Your task to perform on an android device: open app "WhatsApp Messenger" (install if not already installed) Image 0: 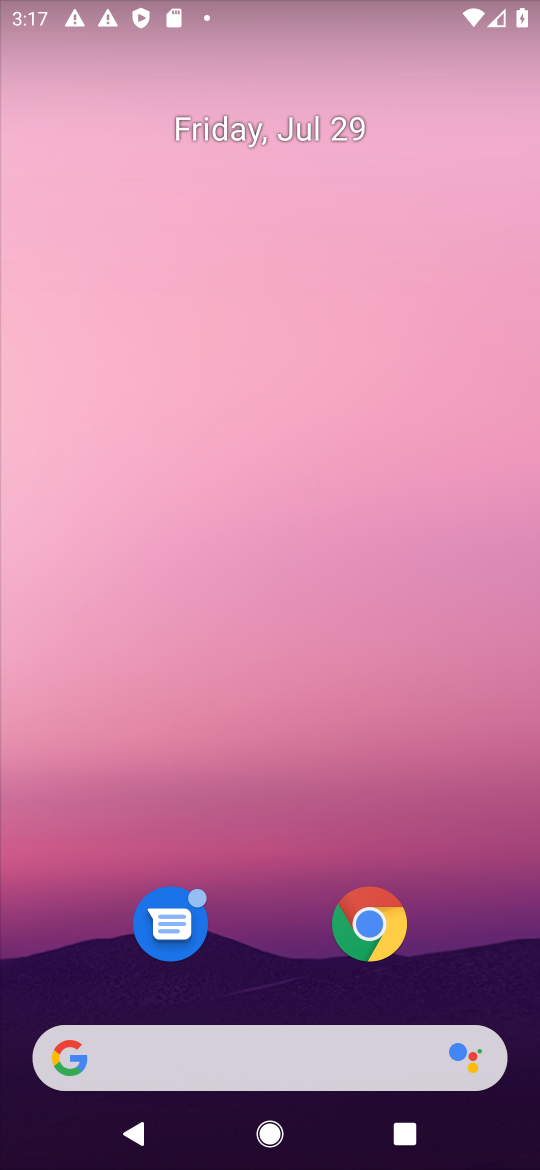
Step 0: drag from (200, 759) to (130, 410)
Your task to perform on an android device: open app "WhatsApp Messenger" (install if not already installed) Image 1: 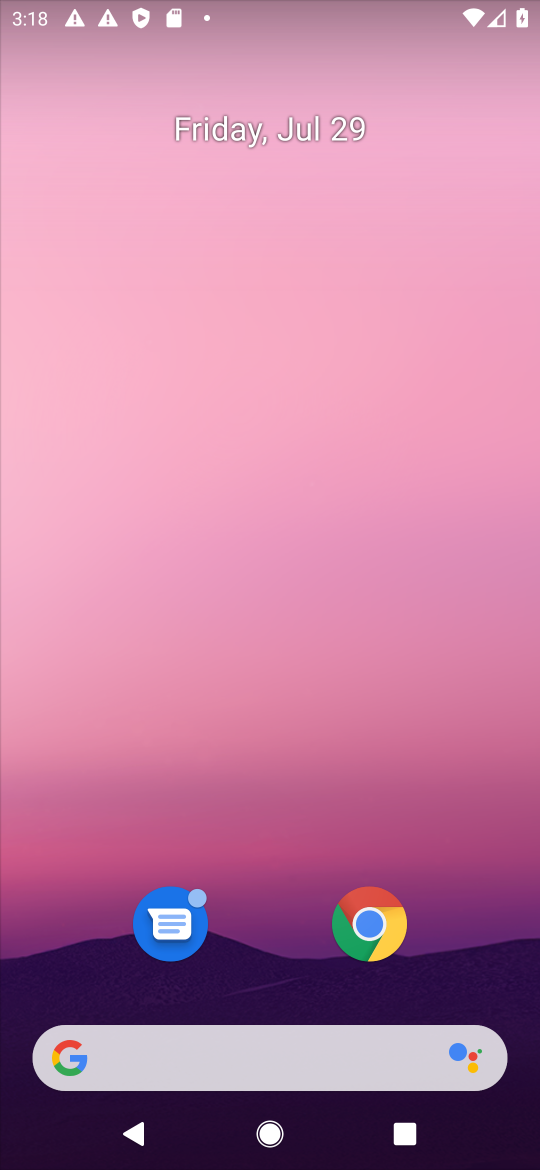
Step 1: drag from (245, 844) to (218, 167)
Your task to perform on an android device: open app "WhatsApp Messenger" (install if not already installed) Image 2: 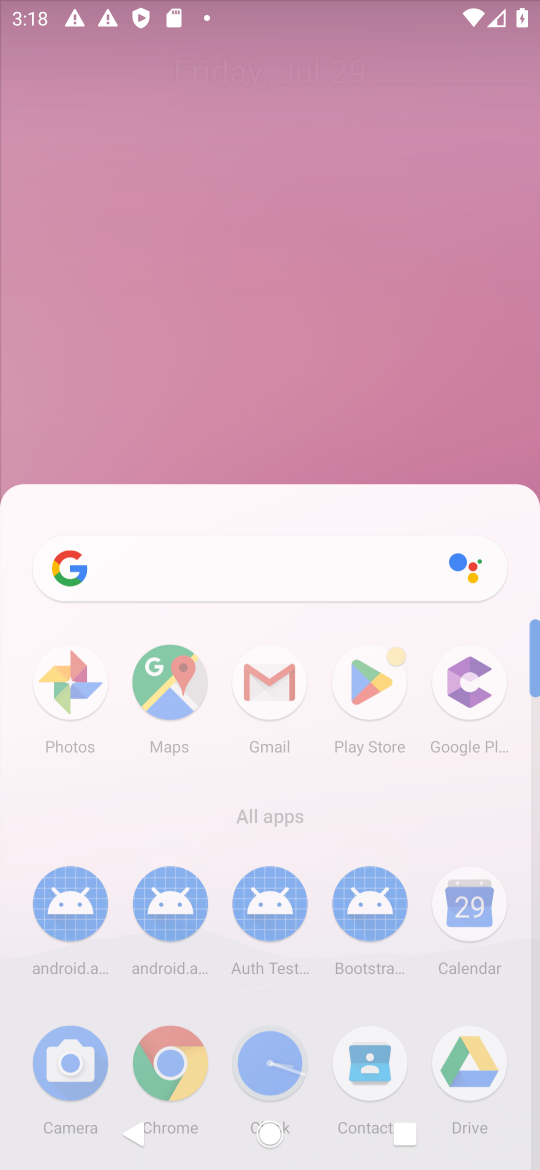
Step 2: drag from (302, 713) to (290, 225)
Your task to perform on an android device: open app "WhatsApp Messenger" (install if not already installed) Image 3: 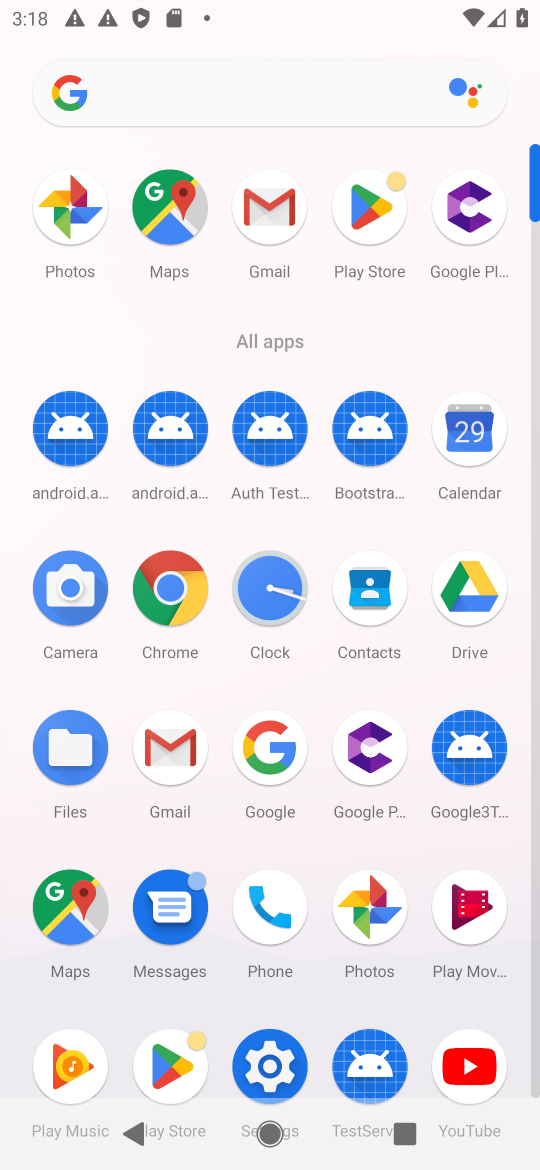
Step 3: drag from (342, 340) to (338, 135)
Your task to perform on an android device: open app "WhatsApp Messenger" (install if not already installed) Image 4: 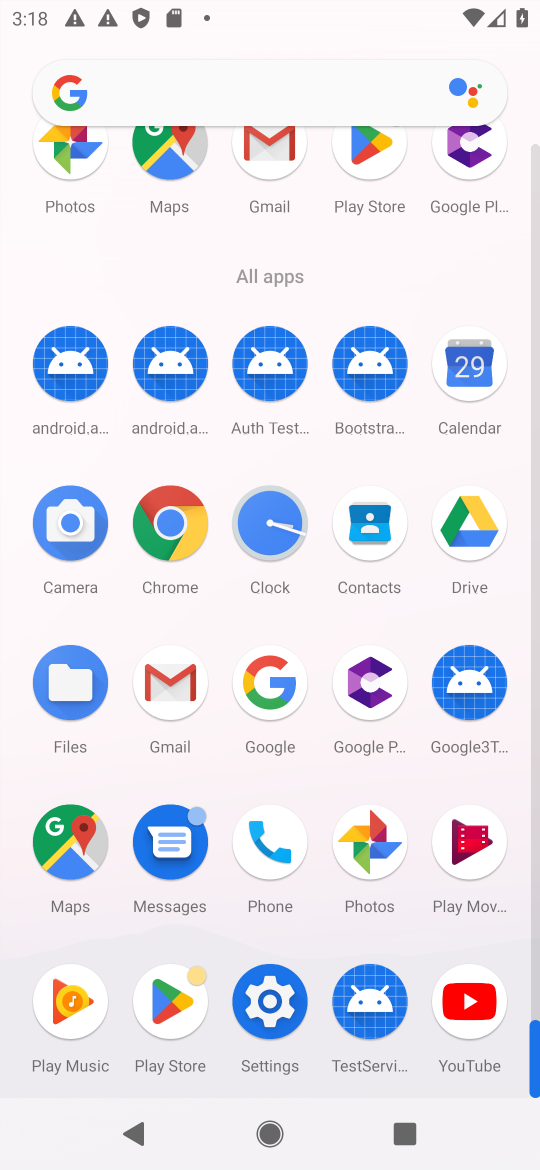
Step 4: click (365, 160)
Your task to perform on an android device: open app "WhatsApp Messenger" (install if not already installed) Image 5: 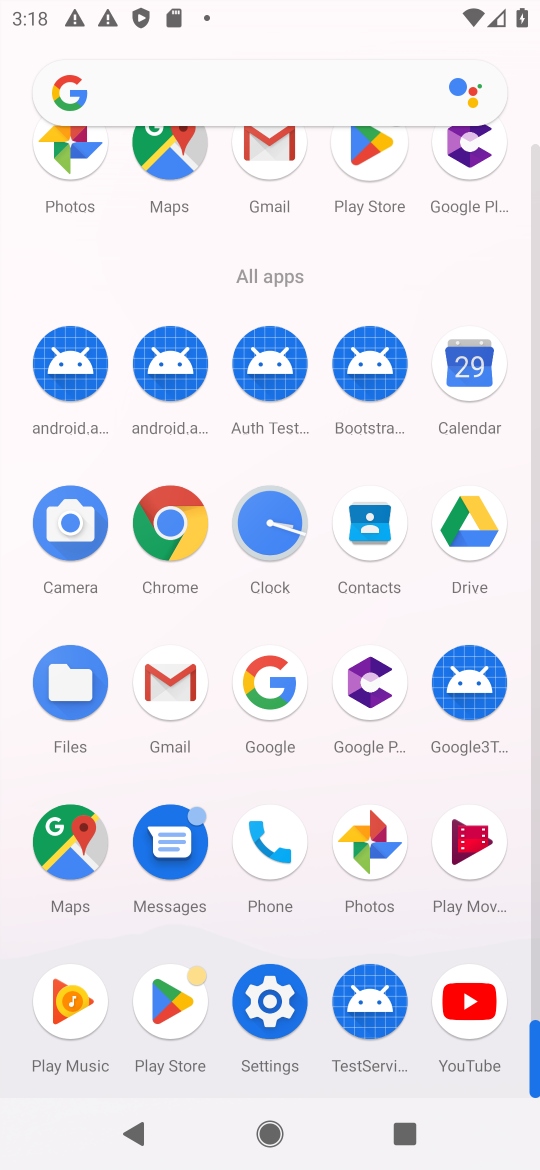
Step 5: click (367, 160)
Your task to perform on an android device: open app "WhatsApp Messenger" (install if not already installed) Image 6: 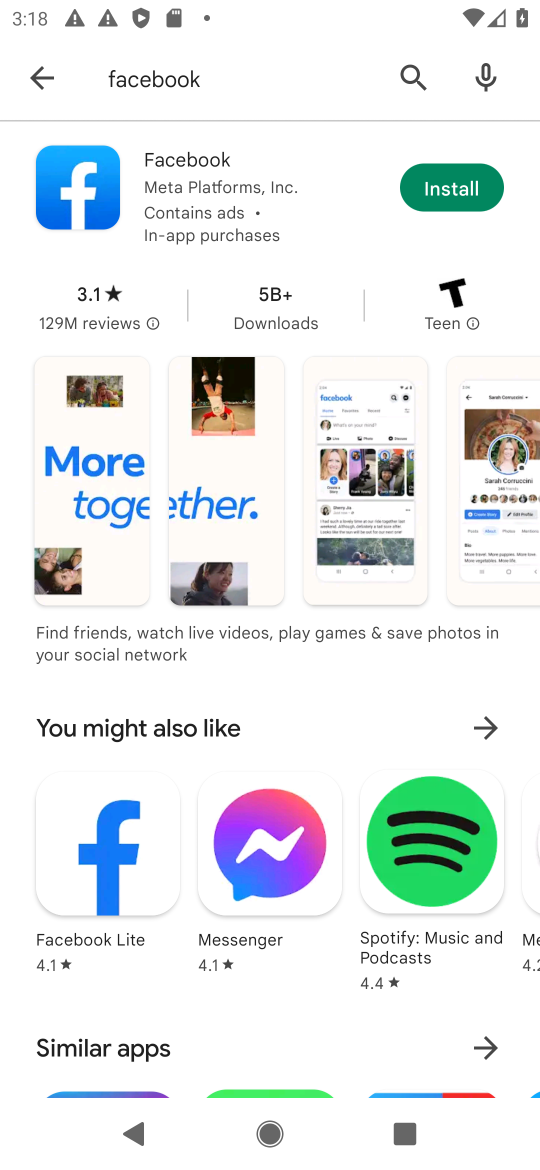
Step 6: click (34, 76)
Your task to perform on an android device: open app "WhatsApp Messenger" (install if not already installed) Image 7: 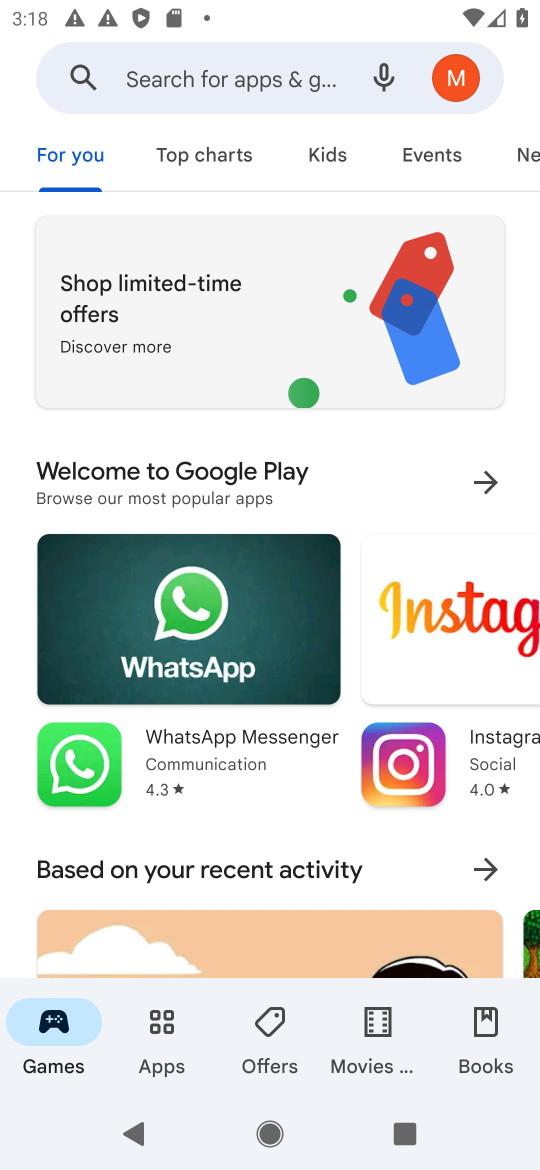
Step 7: click (121, 88)
Your task to perform on an android device: open app "WhatsApp Messenger" (install if not already installed) Image 8: 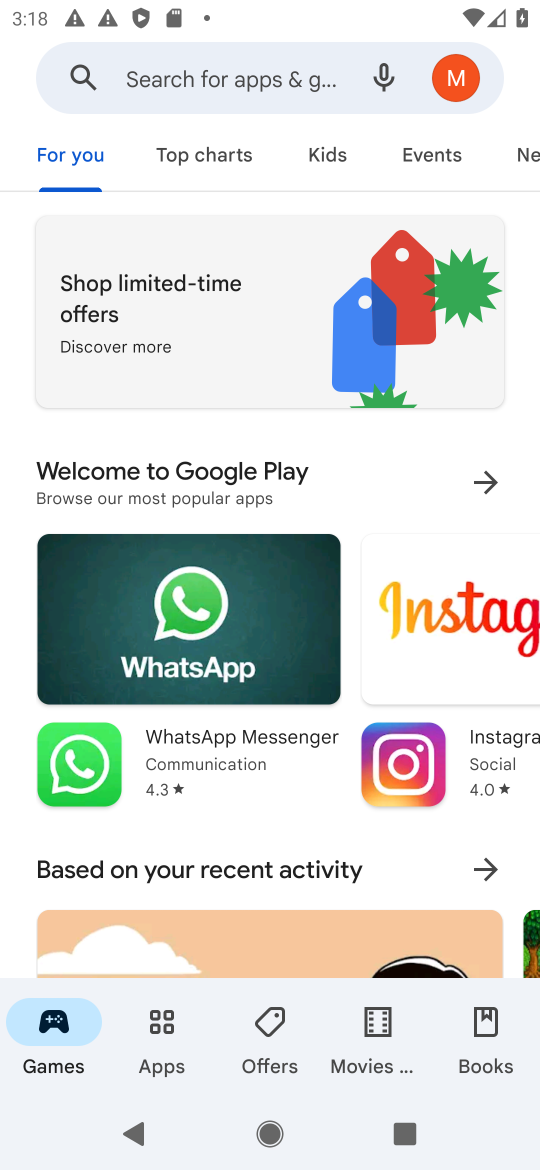
Step 8: click (119, 81)
Your task to perform on an android device: open app "WhatsApp Messenger" (install if not already installed) Image 9: 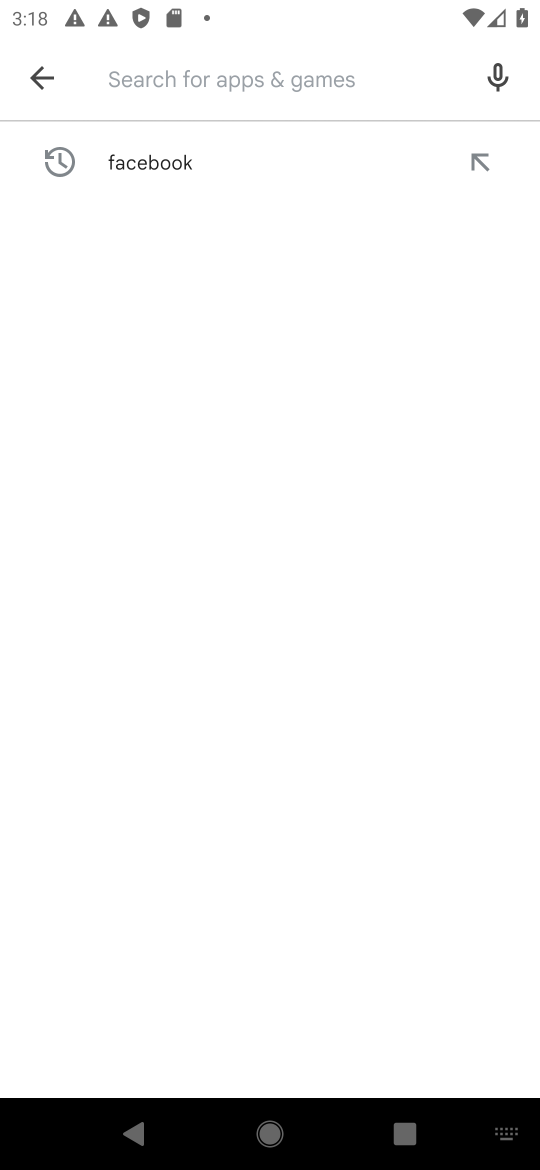
Step 9: type "whats App Messenger"
Your task to perform on an android device: open app "WhatsApp Messenger" (install if not already installed) Image 10: 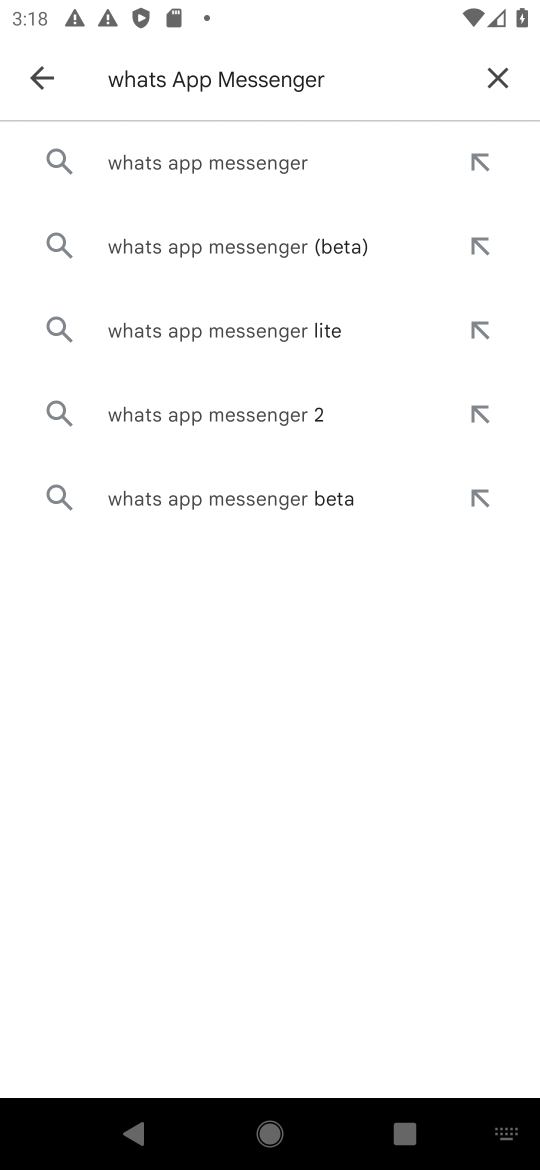
Step 10: click (246, 157)
Your task to perform on an android device: open app "WhatsApp Messenger" (install if not already installed) Image 11: 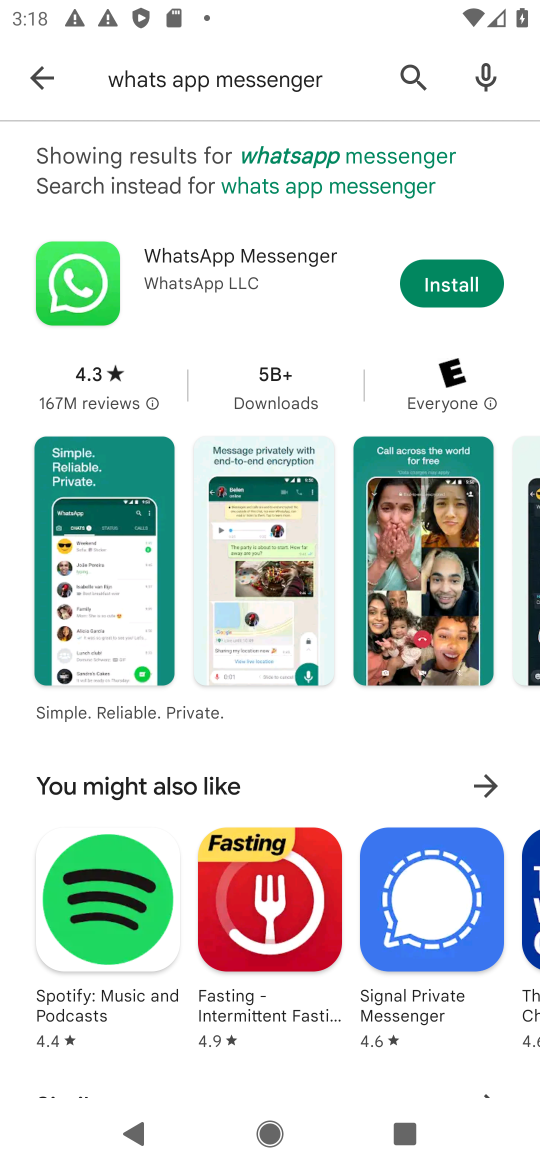
Step 11: click (419, 282)
Your task to perform on an android device: open app "WhatsApp Messenger" (install if not already installed) Image 12: 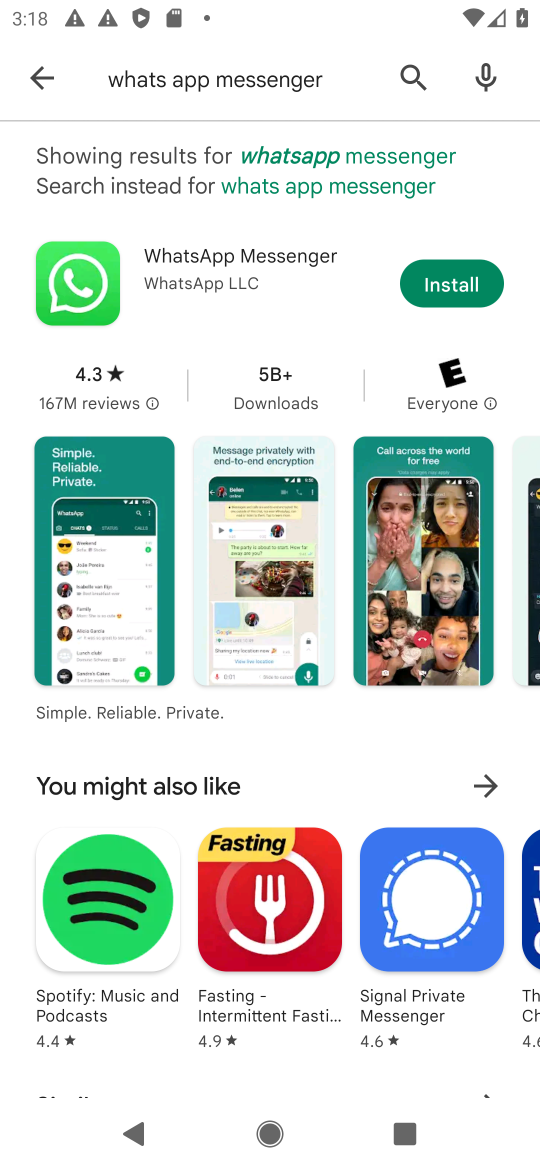
Step 12: click (420, 281)
Your task to perform on an android device: open app "WhatsApp Messenger" (install if not already installed) Image 13: 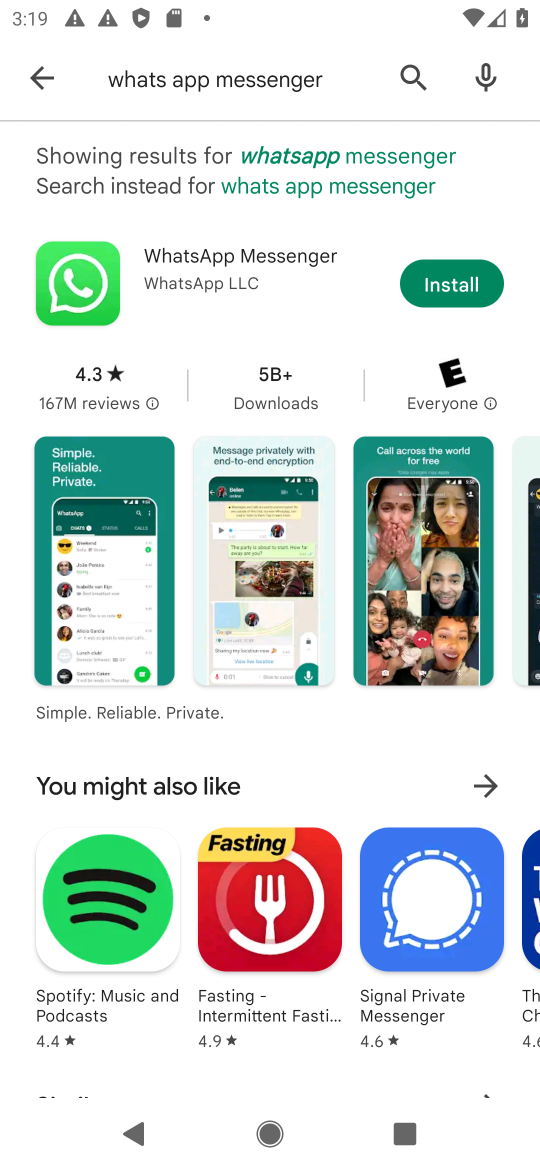
Step 13: click (449, 266)
Your task to perform on an android device: open app "WhatsApp Messenger" (install if not already installed) Image 14: 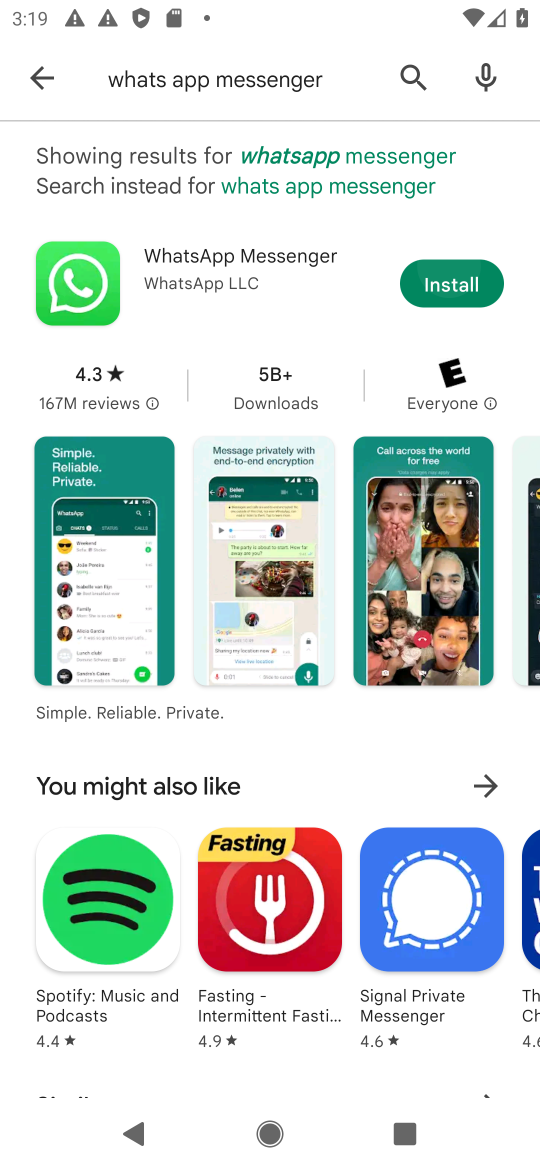
Step 14: click (446, 275)
Your task to perform on an android device: open app "WhatsApp Messenger" (install if not already installed) Image 15: 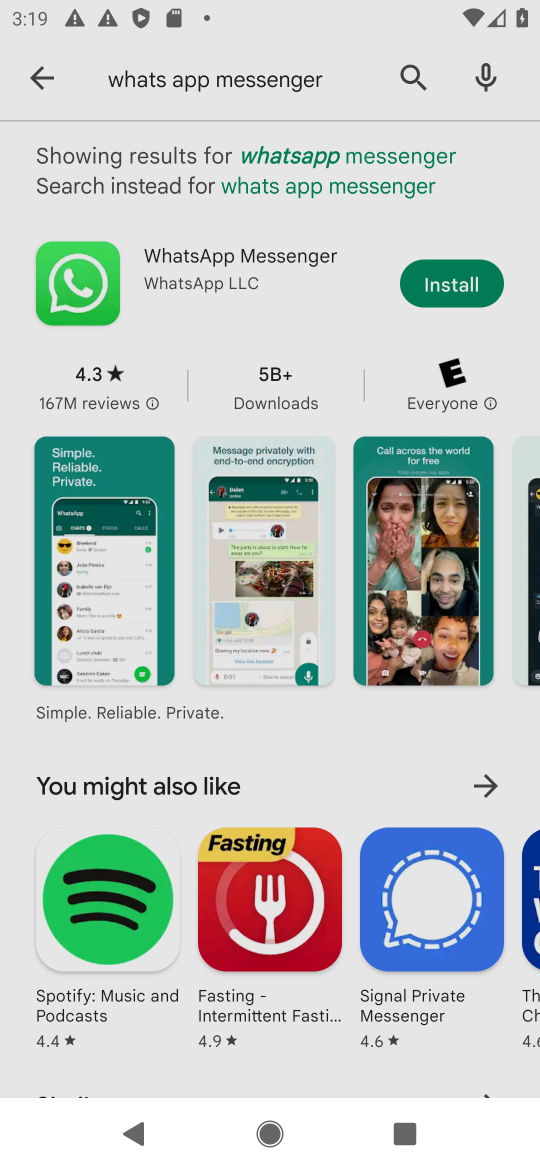
Step 15: click (496, 262)
Your task to perform on an android device: open app "WhatsApp Messenger" (install if not already installed) Image 16: 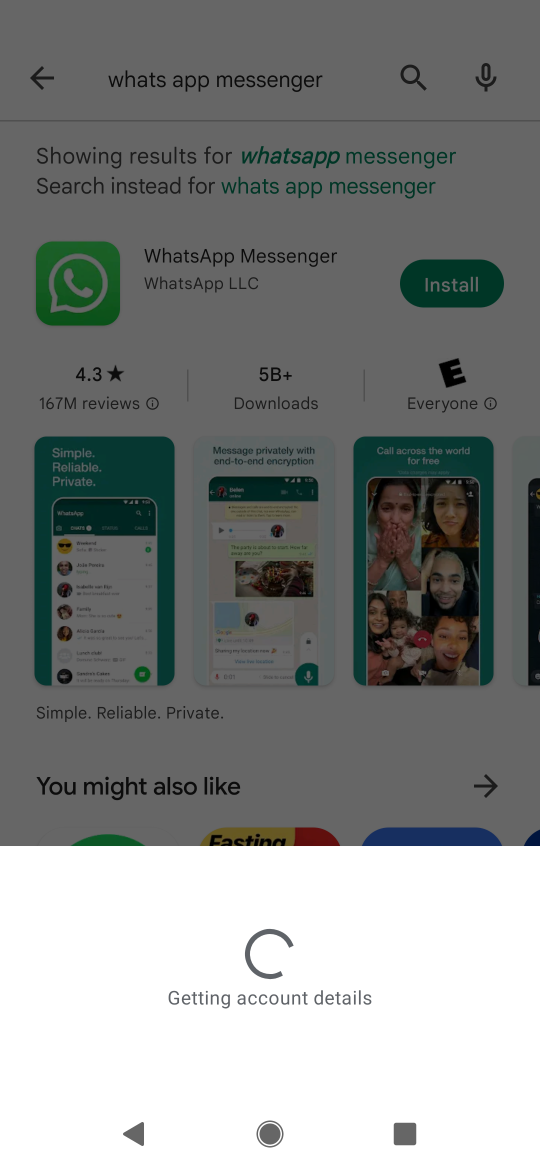
Step 16: click (490, 264)
Your task to perform on an android device: open app "WhatsApp Messenger" (install if not already installed) Image 17: 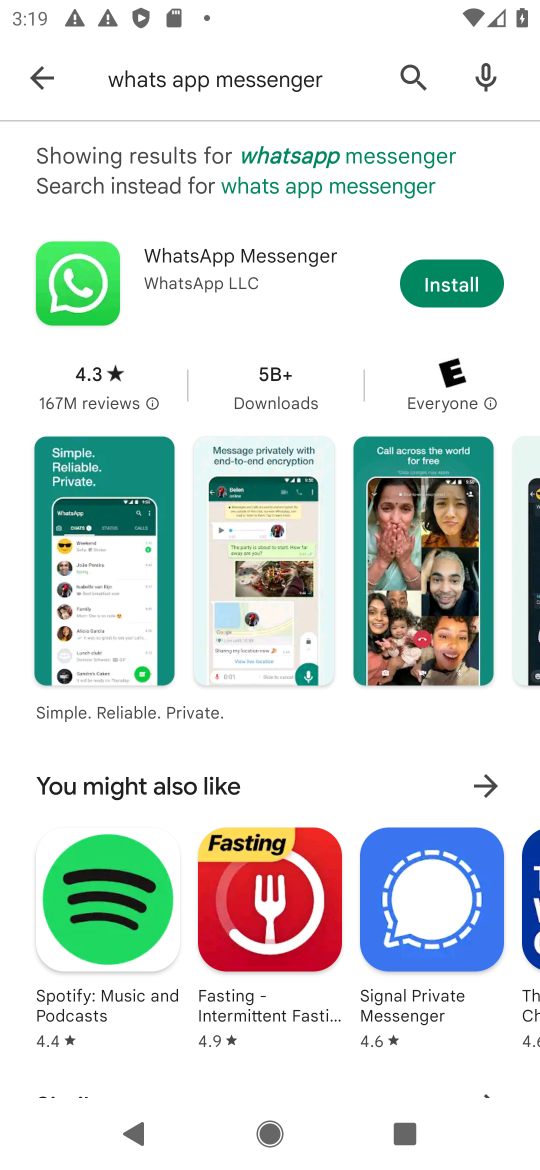
Step 17: click (449, 276)
Your task to perform on an android device: open app "WhatsApp Messenger" (install if not already installed) Image 18: 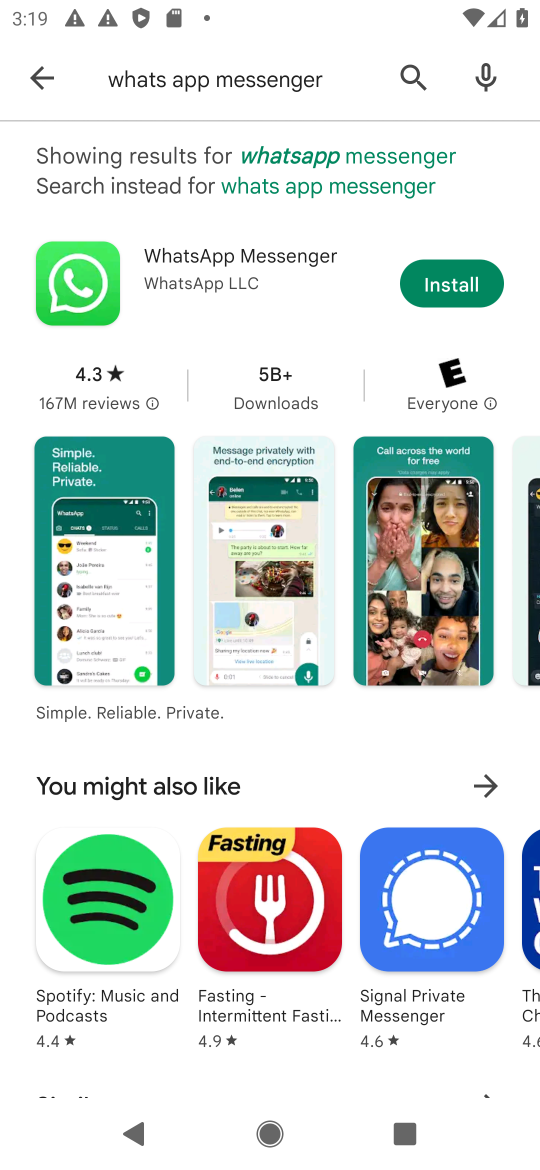
Step 18: click (449, 277)
Your task to perform on an android device: open app "WhatsApp Messenger" (install if not already installed) Image 19: 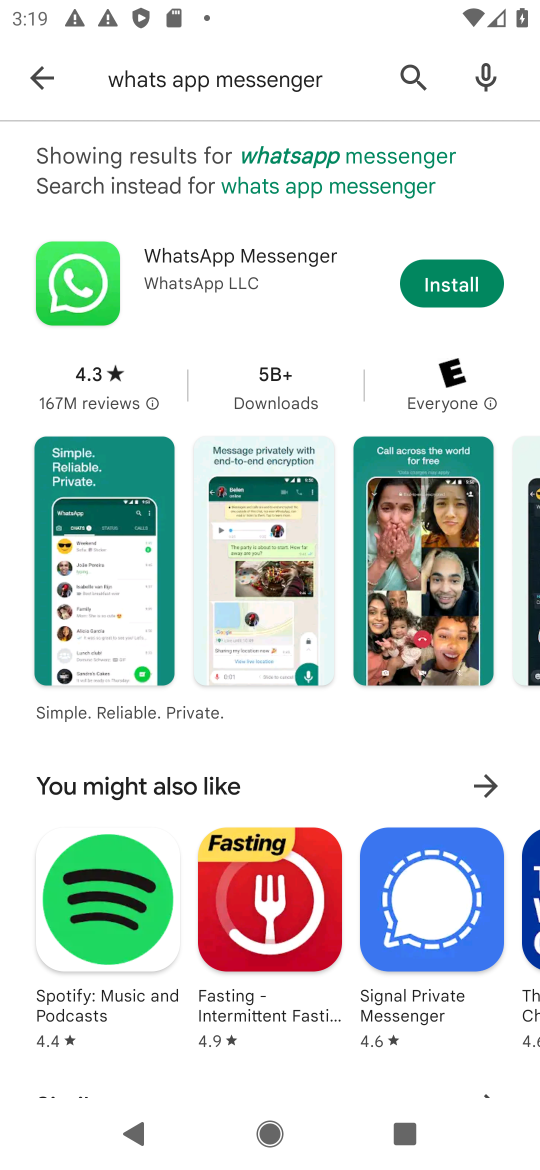
Step 19: click (438, 282)
Your task to perform on an android device: open app "WhatsApp Messenger" (install if not already installed) Image 20: 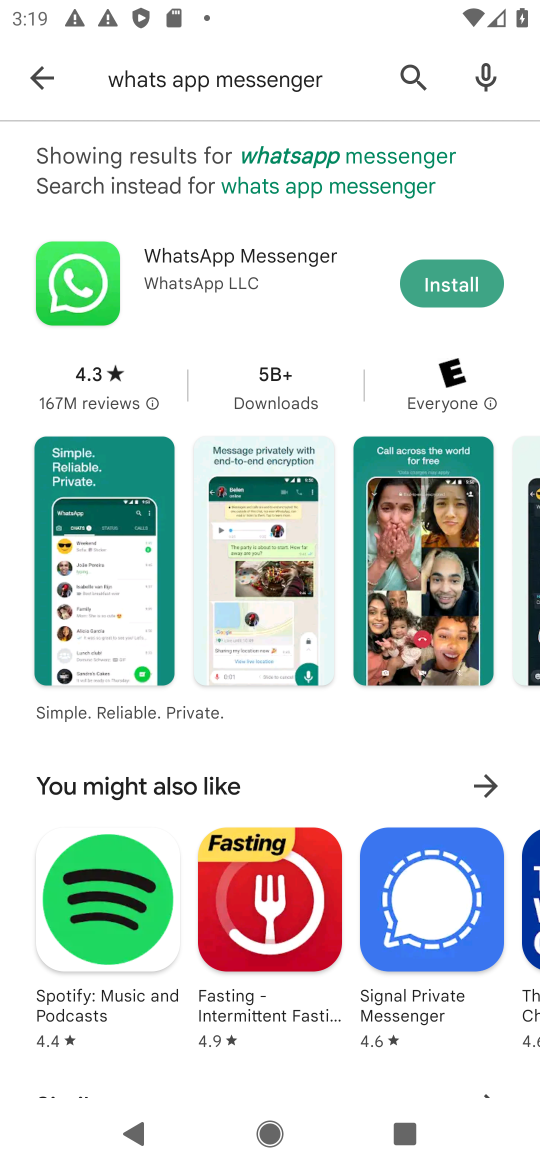
Step 20: click (435, 284)
Your task to perform on an android device: open app "WhatsApp Messenger" (install if not already installed) Image 21: 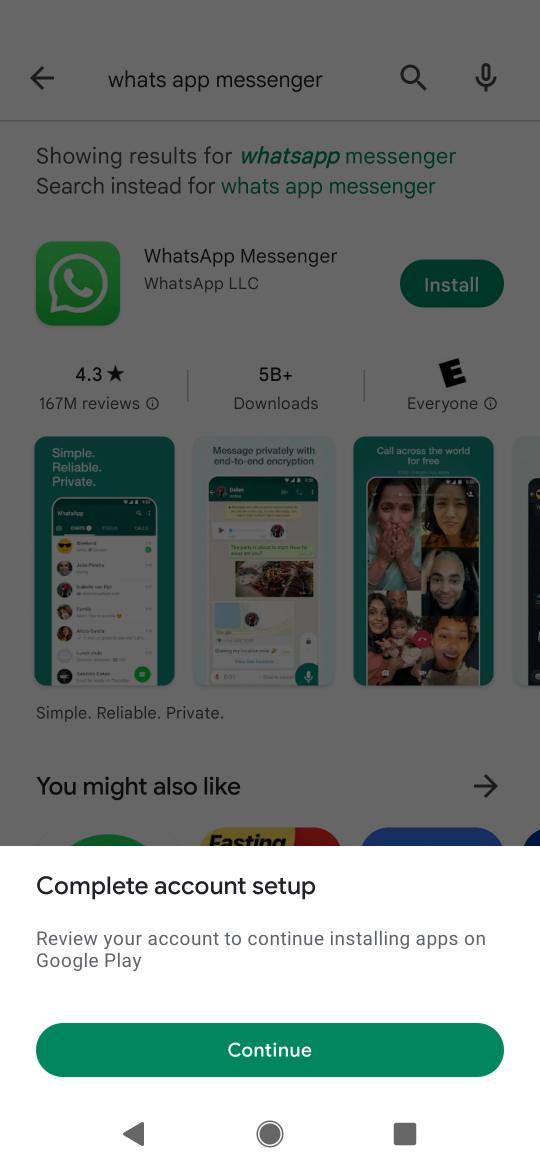
Step 21: click (273, 1049)
Your task to perform on an android device: open app "WhatsApp Messenger" (install if not already installed) Image 22: 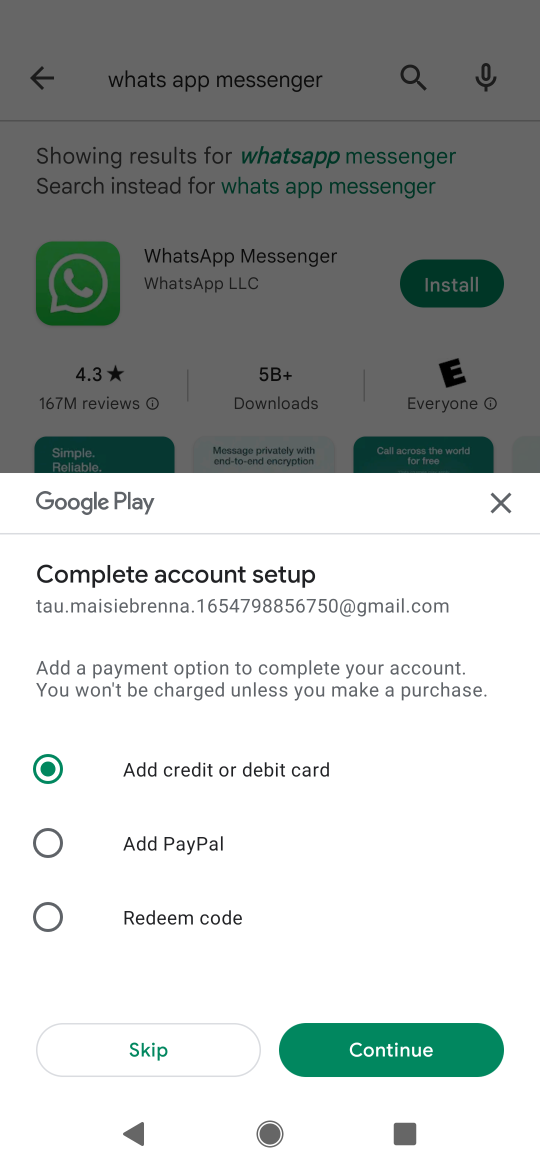
Step 22: click (181, 1037)
Your task to perform on an android device: open app "WhatsApp Messenger" (install if not already installed) Image 23: 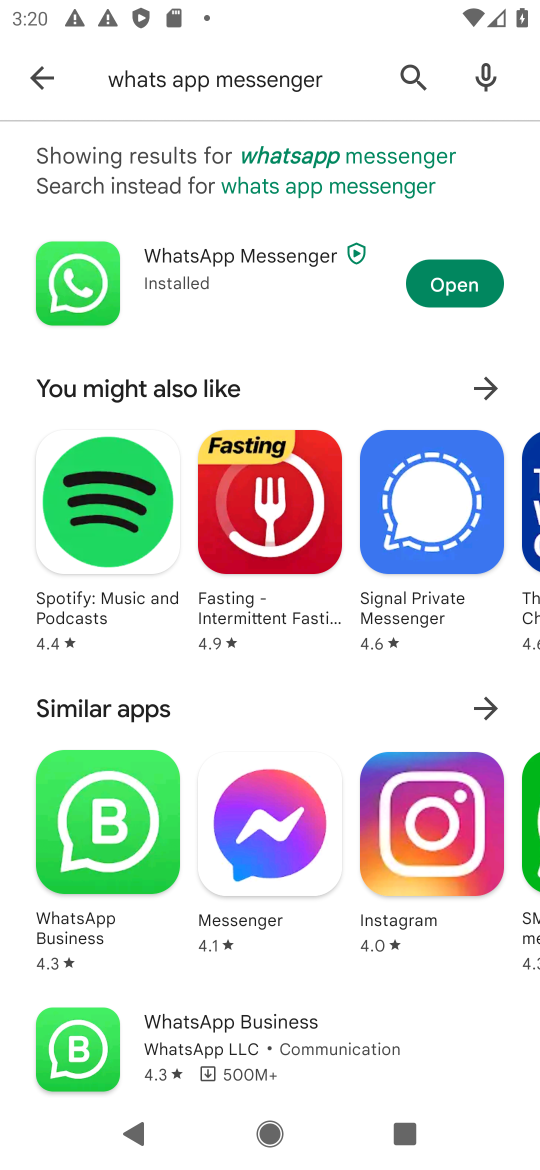
Step 23: click (447, 279)
Your task to perform on an android device: open app "WhatsApp Messenger" (install if not already installed) Image 24: 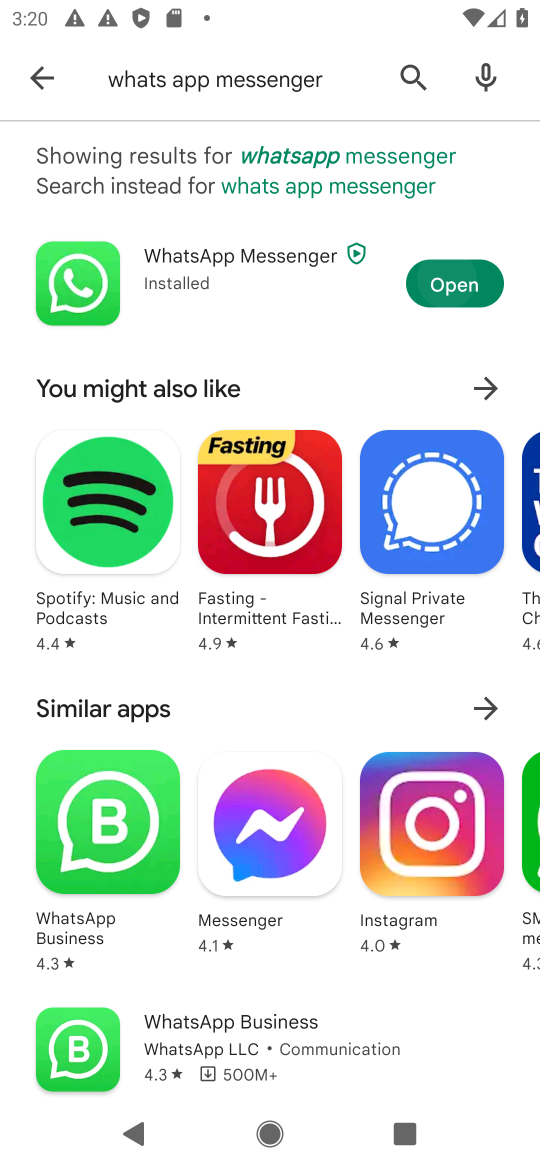
Step 24: click (451, 282)
Your task to perform on an android device: open app "WhatsApp Messenger" (install if not already installed) Image 25: 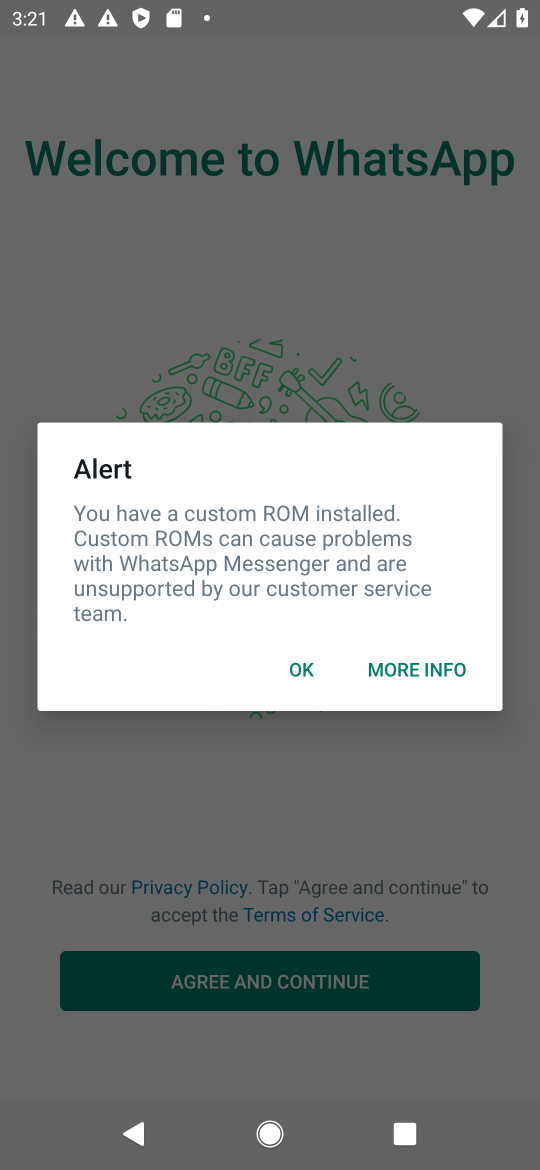
Step 25: click (301, 658)
Your task to perform on an android device: open app "WhatsApp Messenger" (install if not already installed) Image 26: 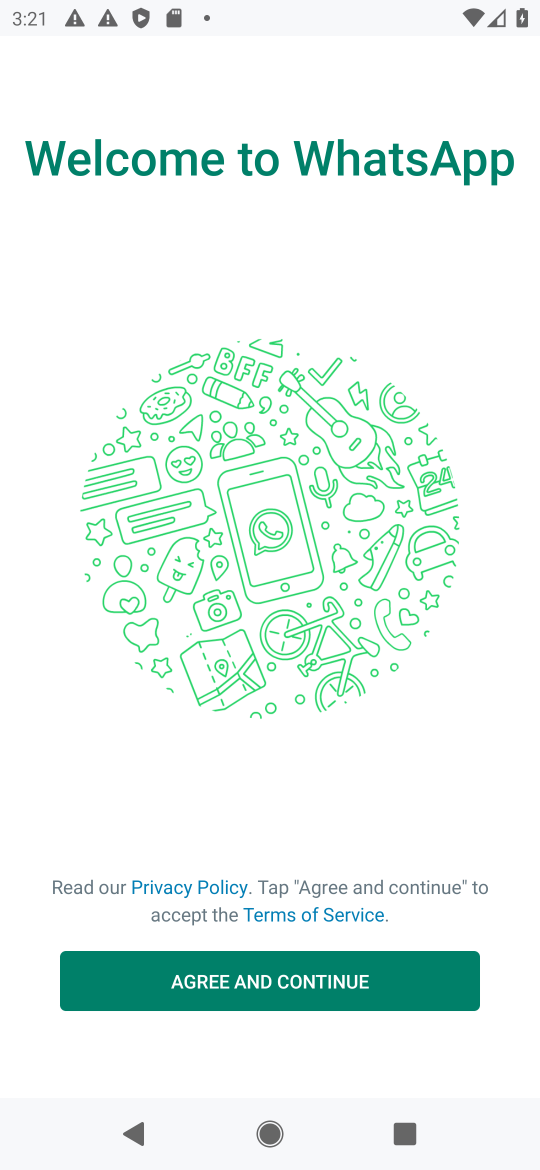
Step 26: click (275, 976)
Your task to perform on an android device: open app "WhatsApp Messenger" (install if not already installed) Image 27: 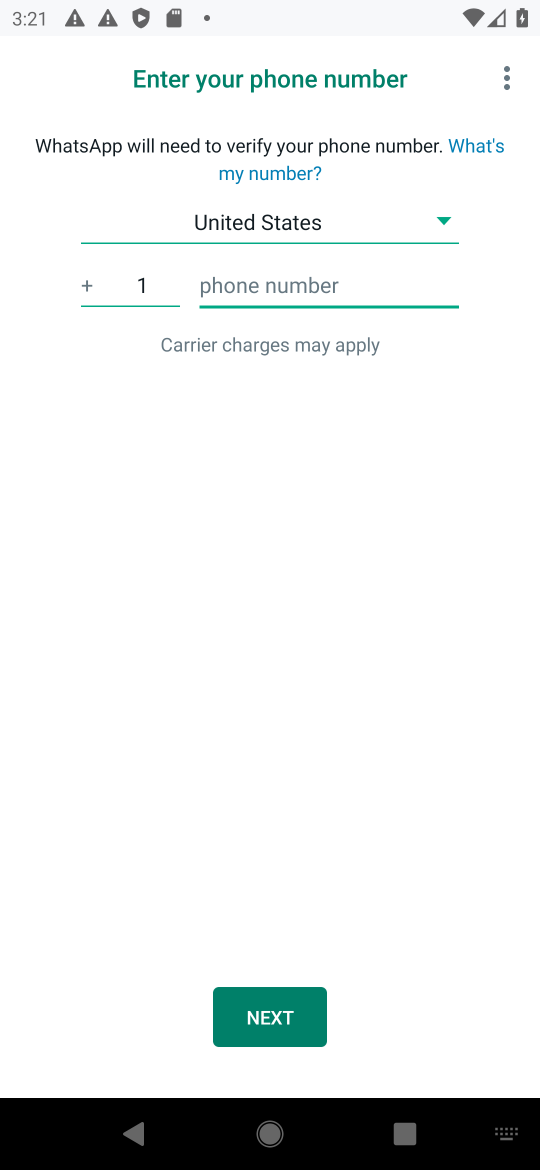
Step 27: click (280, 1008)
Your task to perform on an android device: open app "WhatsApp Messenger" (install if not already installed) Image 28: 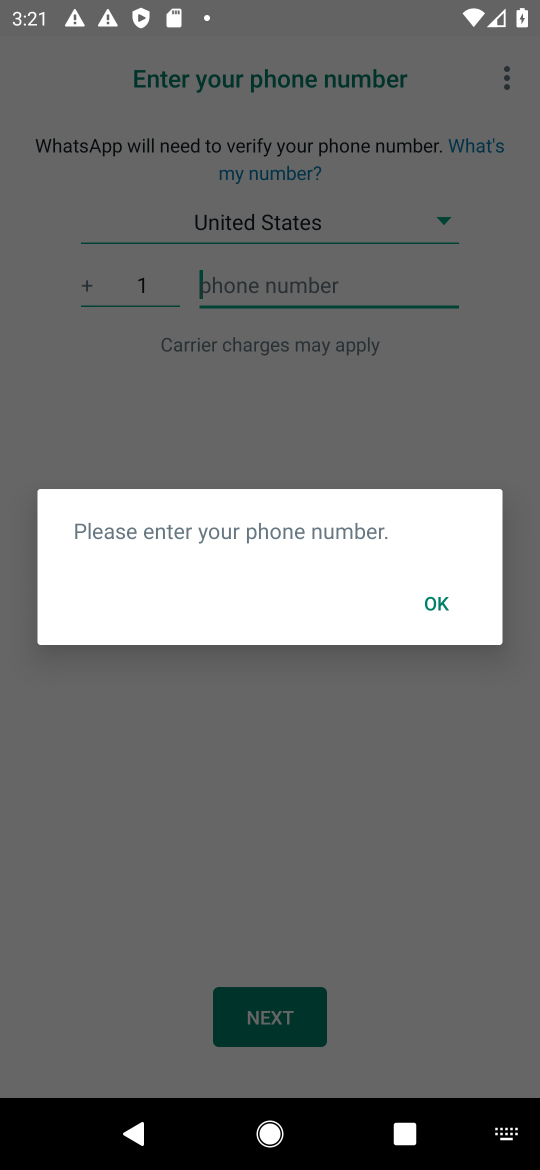
Step 28: click (437, 620)
Your task to perform on an android device: open app "WhatsApp Messenger" (install if not already installed) Image 29: 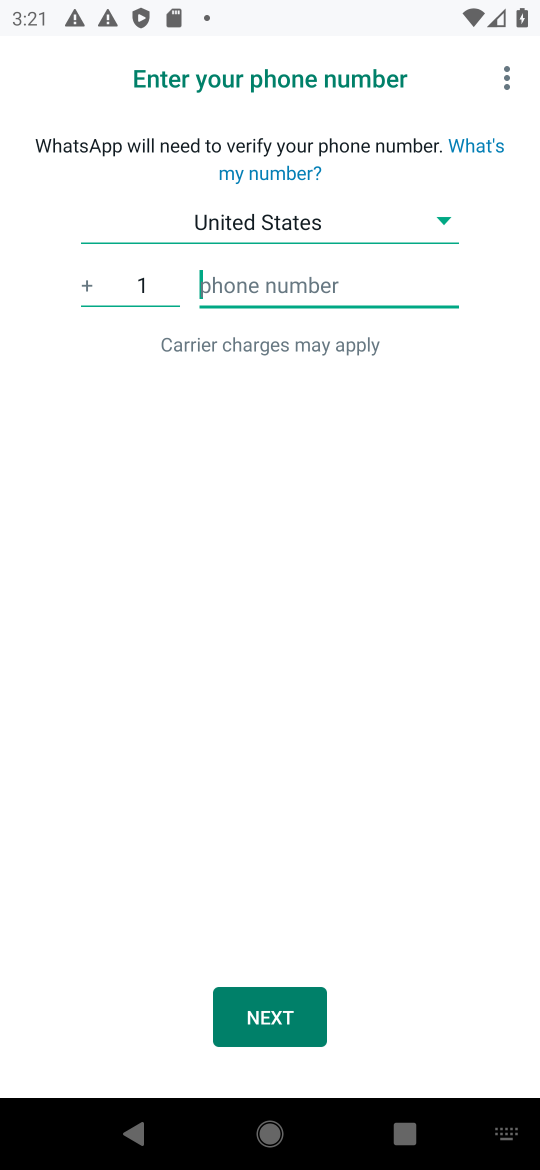
Step 29: task complete